Your task to perform on an android device: What's the weather today? Image 0: 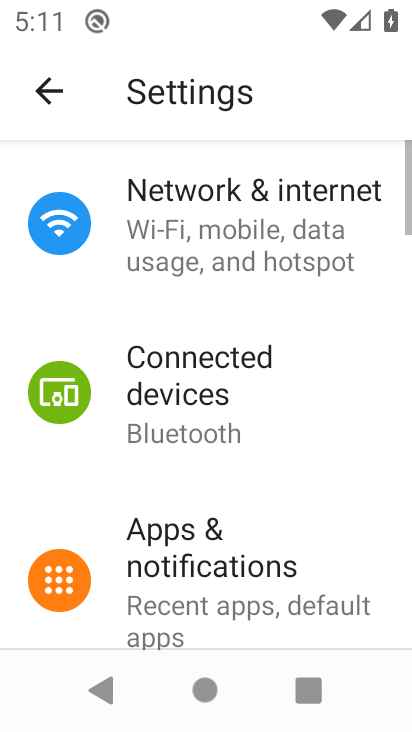
Step 0: click (44, 92)
Your task to perform on an android device: What's the weather today? Image 1: 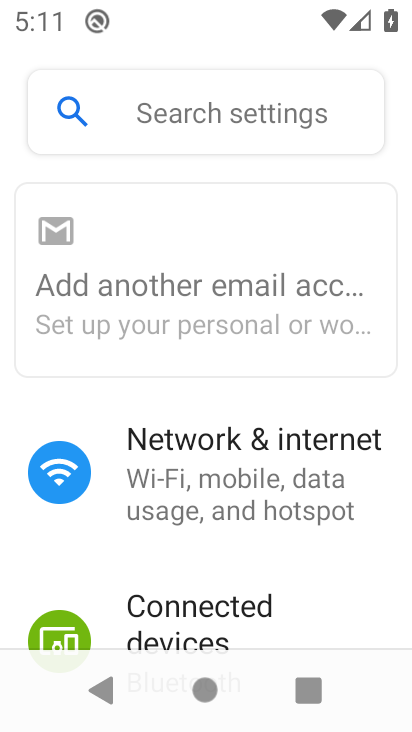
Step 1: press back button
Your task to perform on an android device: What's the weather today? Image 2: 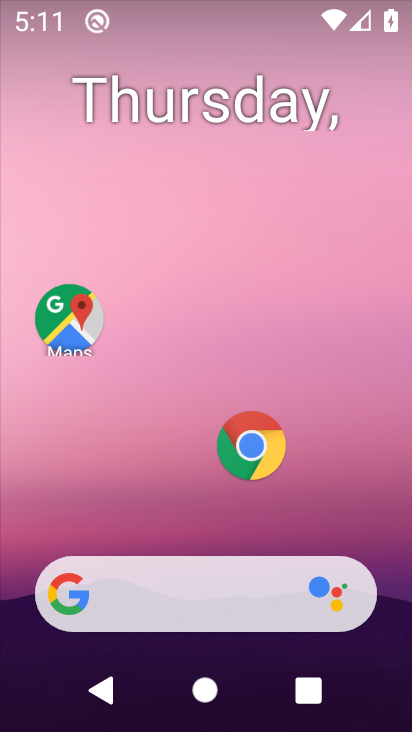
Step 2: drag from (25, 197) to (402, 368)
Your task to perform on an android device: What's the weather today? Image 3: 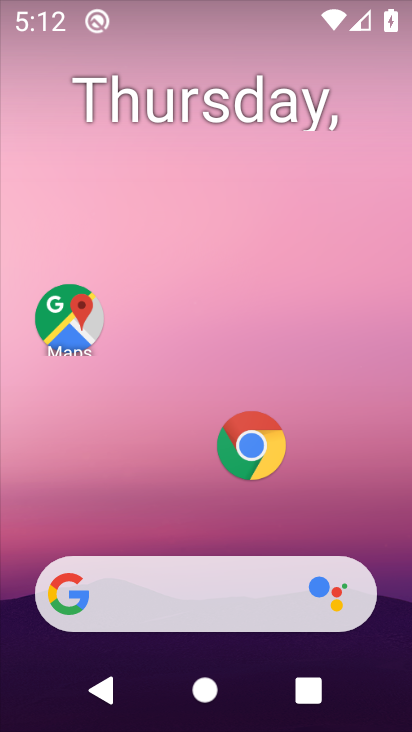
Step 3: click (106, 0)
Your task to perform on an android device: What's the weather today? Image 4: 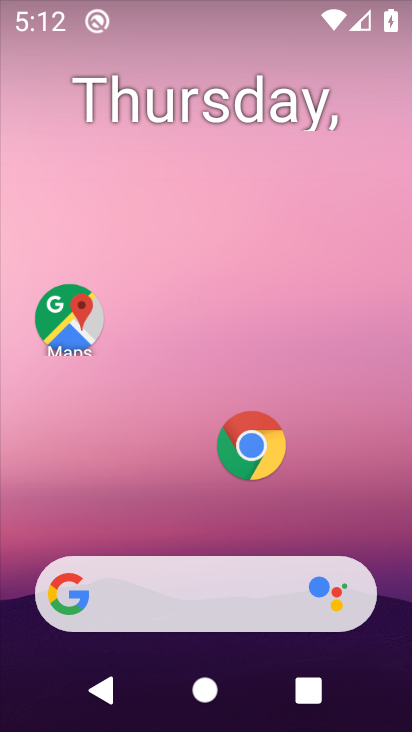
Step 4: drag from (197, 257) to (382, 588)
Your task to perform on an android device: What's the weather today? Image 5: 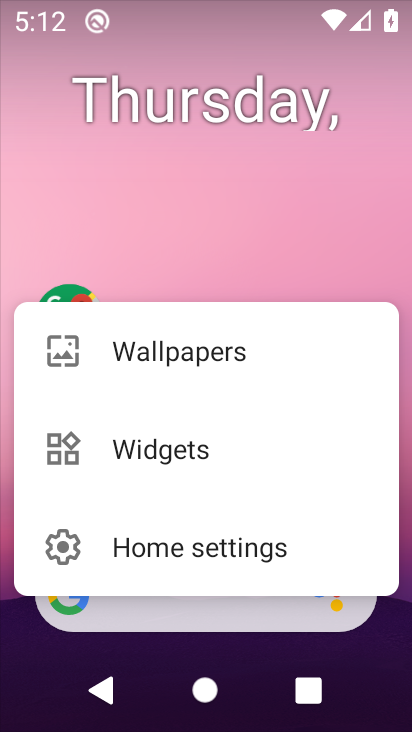
Step 5: click (350, 487)
Your task to perform on an android device: What's the weather today? Image 6: 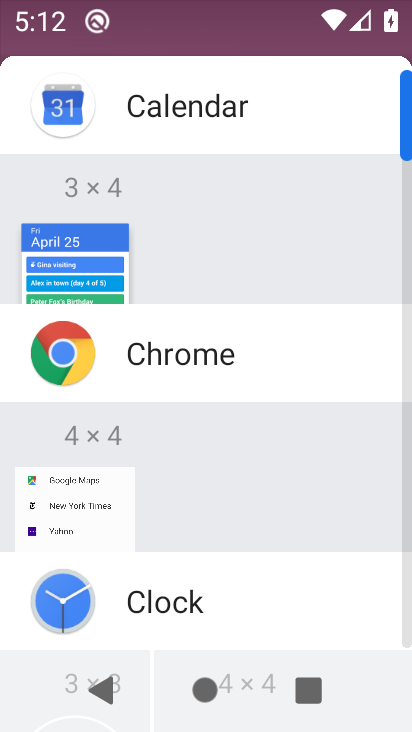
Step 6: press back button
Your task to perform on an android device: What's the weather today? Image 7: 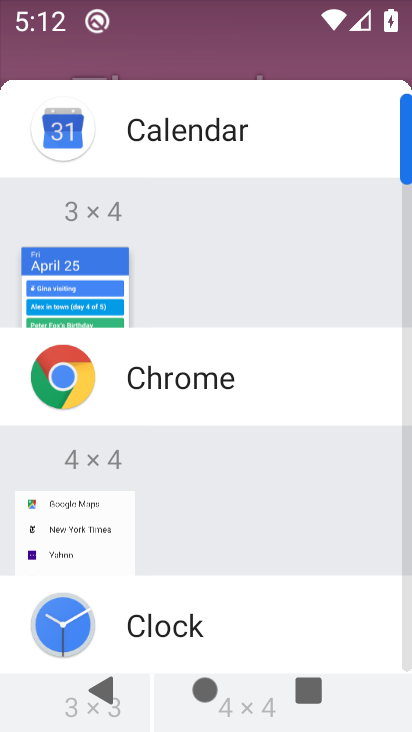
Step 7: press back button
Your task to perform on an android device: What's the weather today? Image 8: 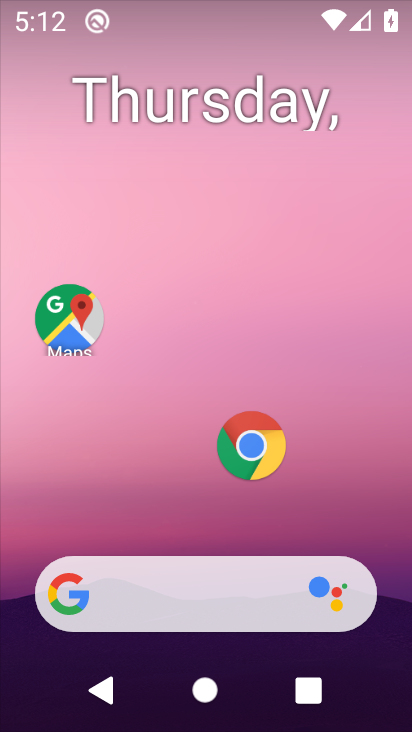
Step 8: press back button
Your task to perform on an android device: What's the weather today? Image 9: 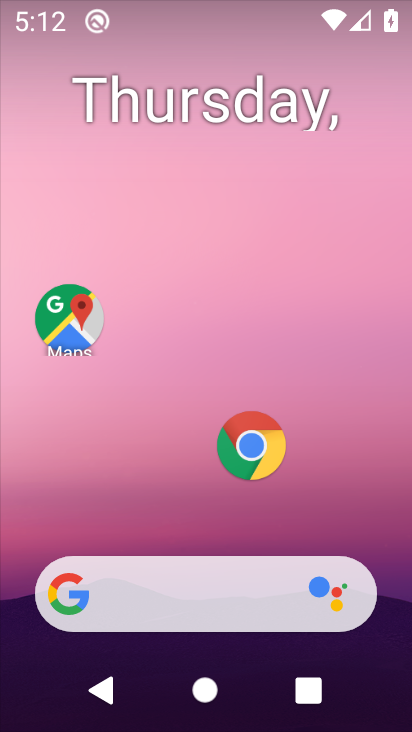
Step 9: press back button
Your task to perform on an android device: What's the weather today? Image 10: 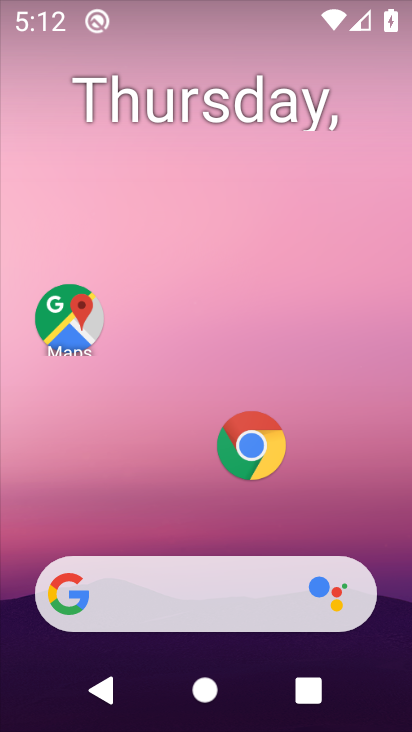
Step 10: drag from (30, 218) to (411, 652)
Your task to perform on an android device: What's the weather today? Image 11: 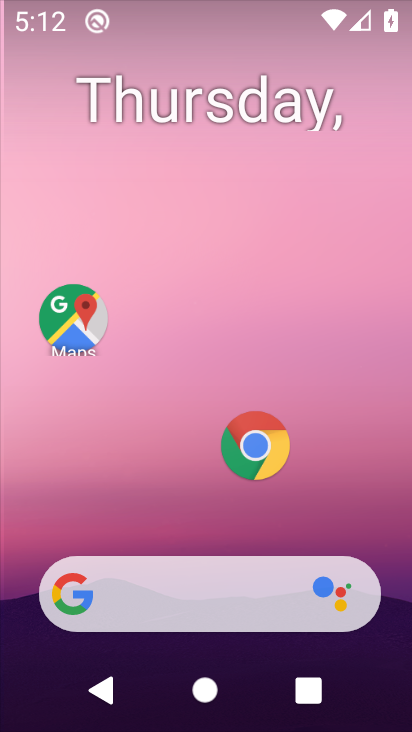
Step 11: drag from (9, 190) to (295, 490)
Your task to perform on an android device: What's the weather today? Image 12: 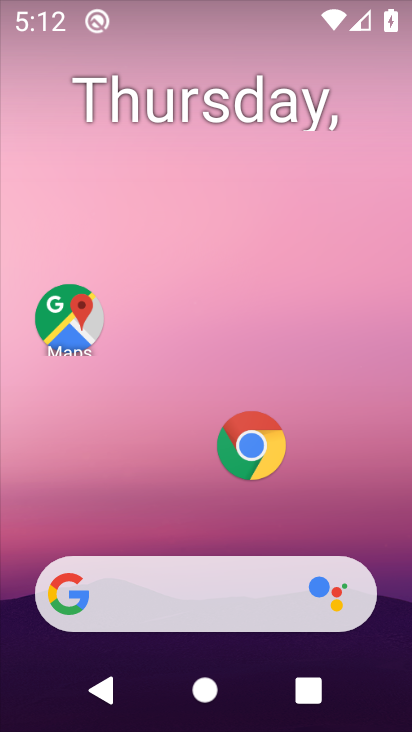
Step 12: drag from (24, 206) to (396, 496)
Your task to perform on an android device: What's the weather today? Image 13: 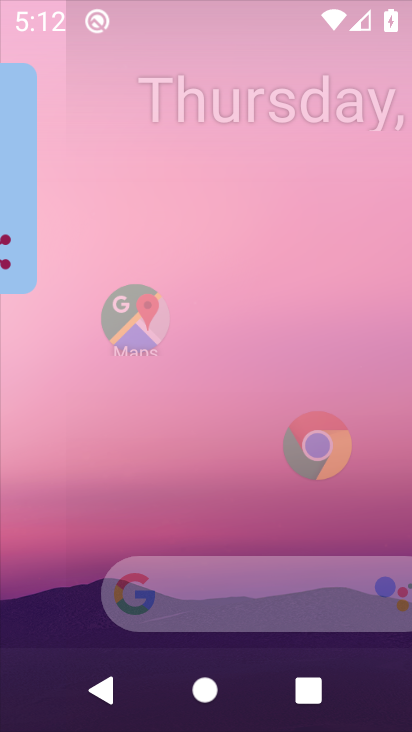
Step 13: drag from (179, 202) to (394, 399)
Your task to perform on an android device: What's the weather today? Image 14: 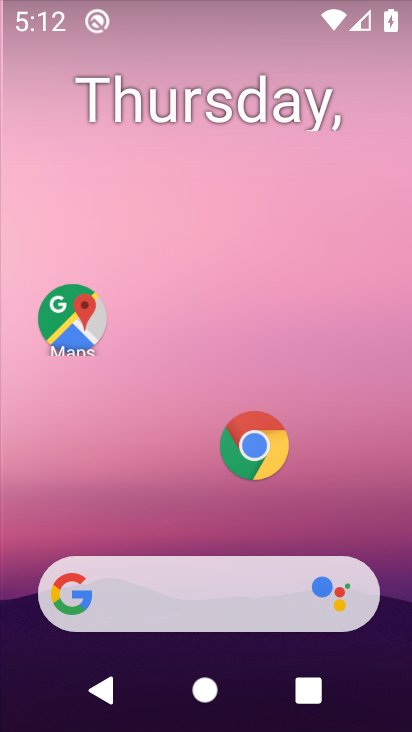
Step 14: drag from (27, 181) to (348, 358)
Your task to perform on an android device: What's the weather today? Image 15: 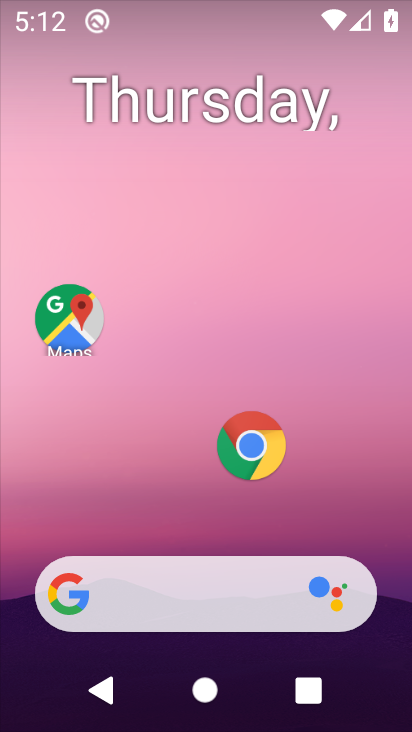
Step 15: drag from (16, 211) to (375, 344)
Your task to perform on an android device: What's the weather today? Image 16: 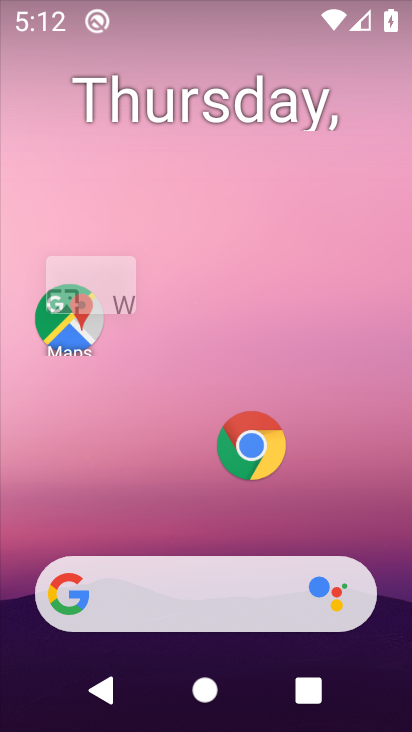
Step 16: drag from (256, 327) to (342, 607)
Your task to perform on an android device: What's the weather today? Image 17: 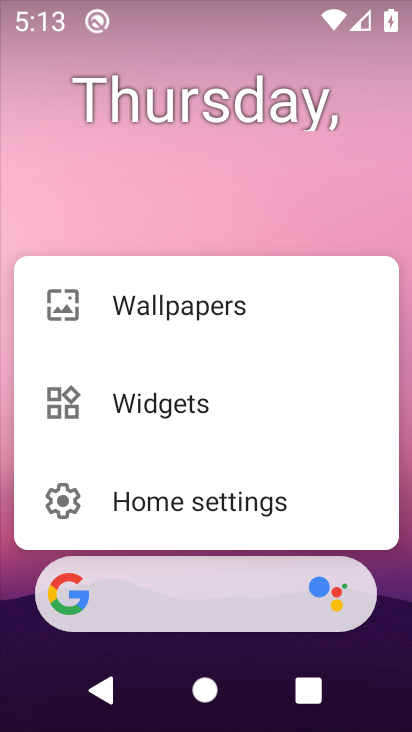
Step 17: drag from (11, 199) to (380, 465)
Your task to perform on an android device: What's the weather today? Image 18: 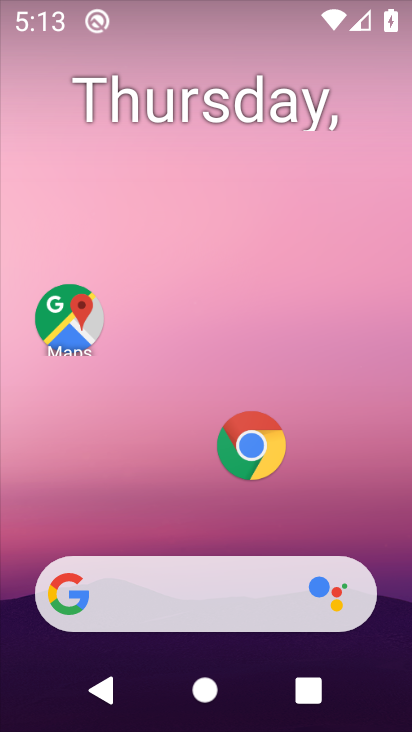
Step 18: click (125, 209)
Your task to perform on an android device: What's the weather today? Image 19: 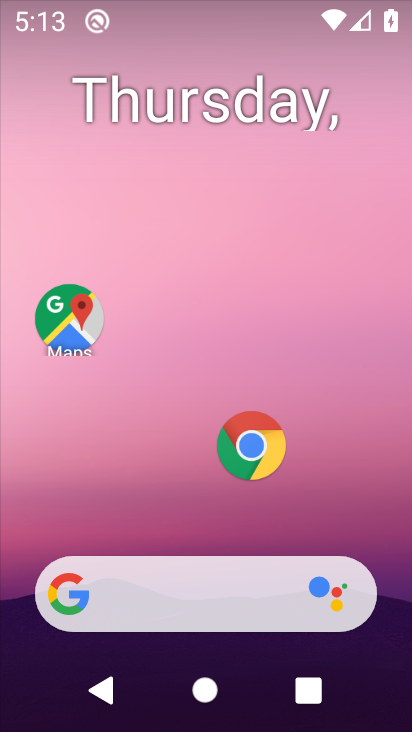
Step 19: click (126, 210)
Your task to perform on an android device: What's the weather today? Image 20: 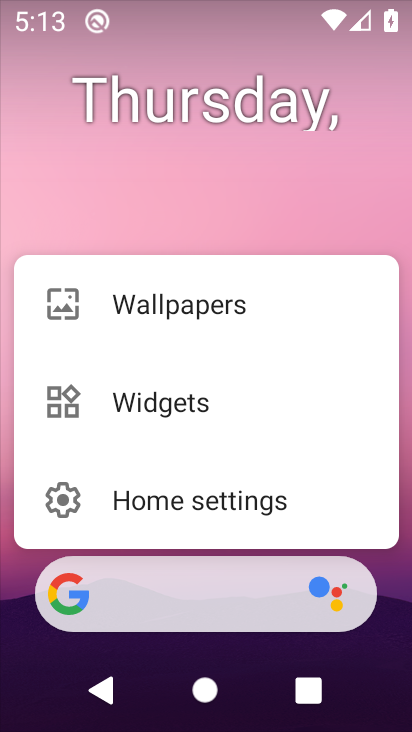
Step 20: task complete